Your task to perform on an android device: What is the news today? Image 0: 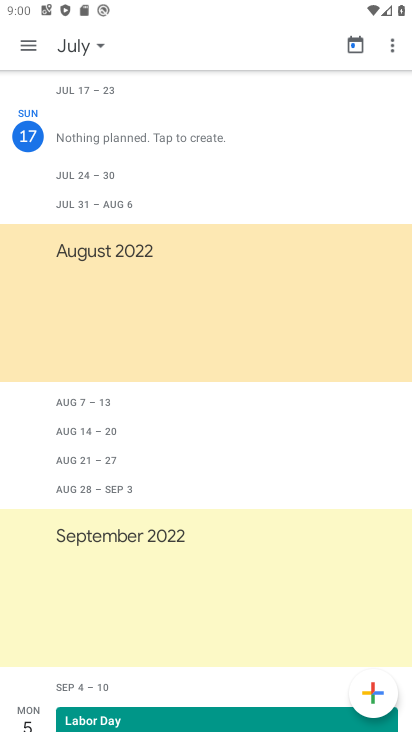
Step 0: press home button
Your task to perform on an android device: What is the news today? Image 1: 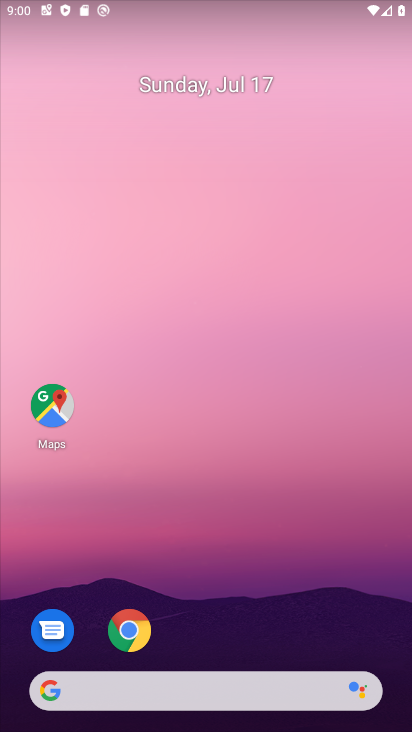
Step 1: drag from (190, 651) to (286, 129)
Your task to perform on an android device: What is the news today? Image 2: 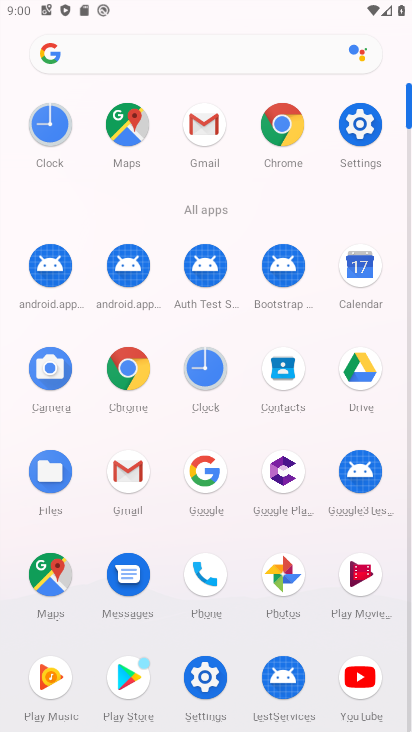
Step 2: click (120, 341)
Your task to perform on an android device: What is the news today? Image 3: 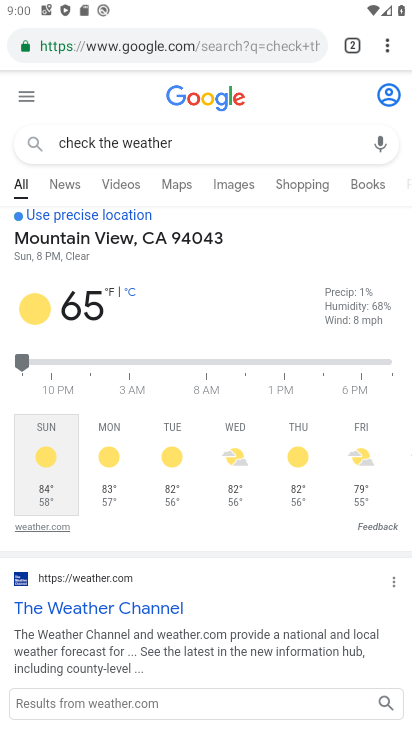
Step 3: click (161, 39)
Your task to perform on an android device: What is the news today? Image 4: 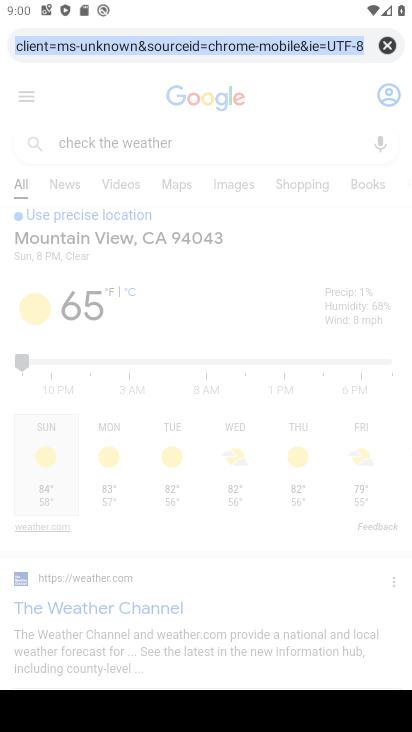
Step 4: type "what is the news today"
Your task to perform on an android device: What is the news today? Image 5: 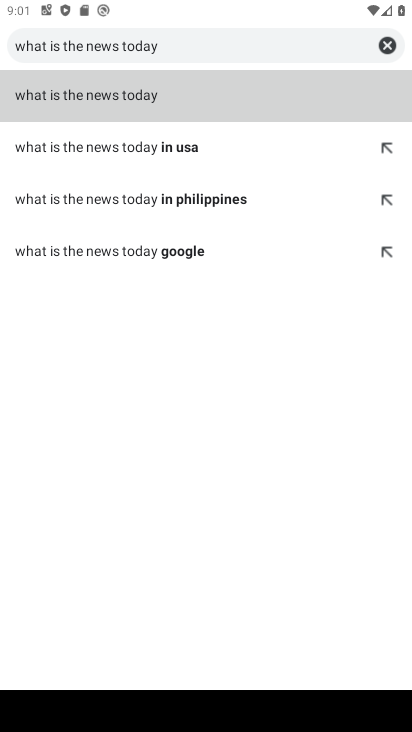
Step 5: click (182, 108)
Your task to perform on an android device: What is the news today? Image 6: 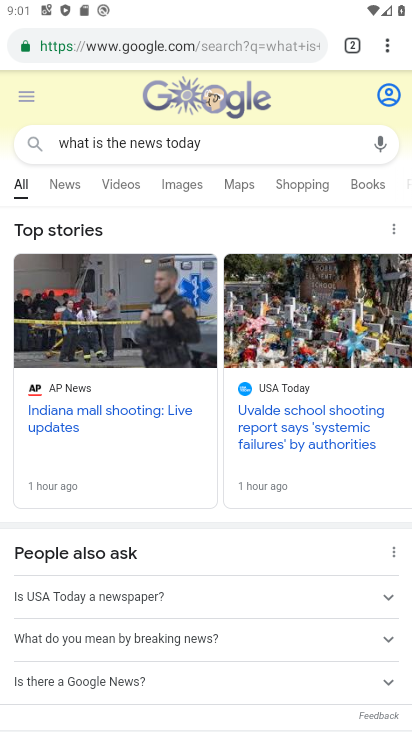
Step 6: task complete